Your task to perform on an android device: Go to location settings Image 0: 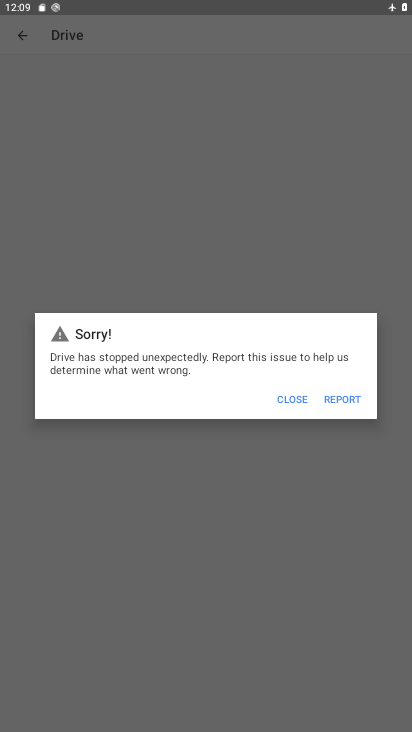
Step 0: press home button
Your task to perform on an android device: Go to location settings Image 1: 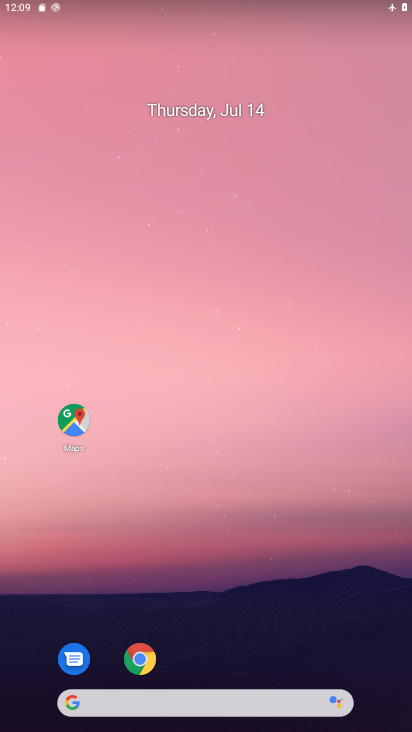
Step 1: drag from (272, 590) to (245, 46)
Your task to perform on an android device: Go to location settings Image 2: 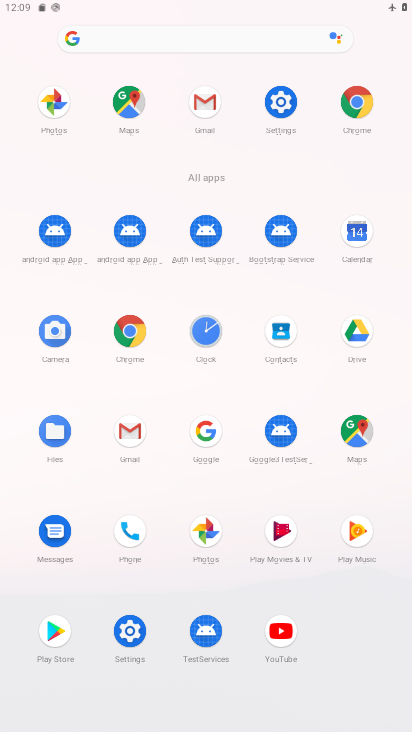
Step 2: click (281, 97)
Your task to perform on an android device: Go to location settings Image 3: 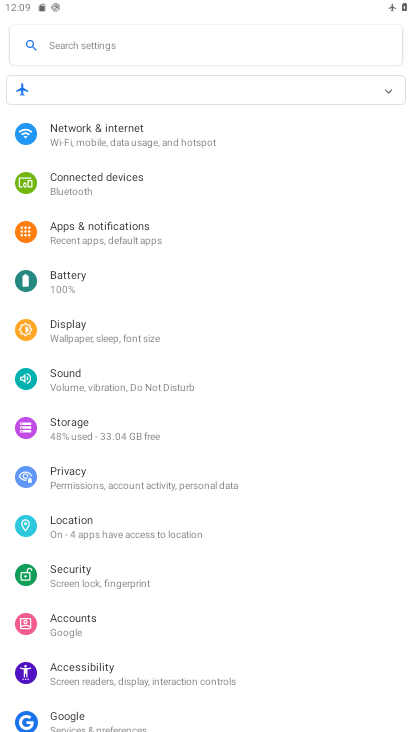
Step 3: click (69, 527)
Your task to perform on an android device: Go to location settings Image 4: 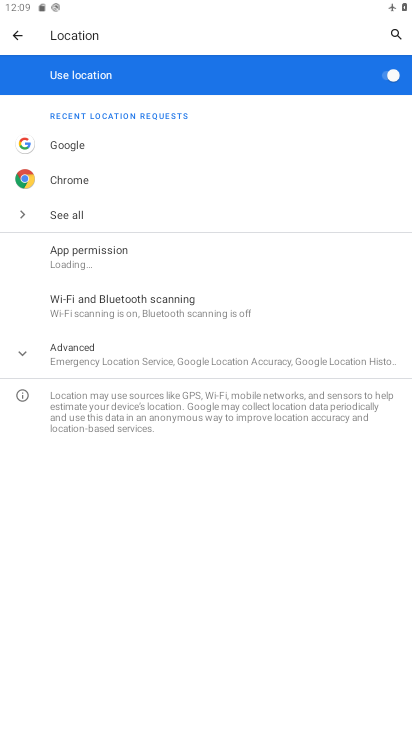
Step 4: task complete